Your task to perform on an android device: Open ESPN.com Image 0: 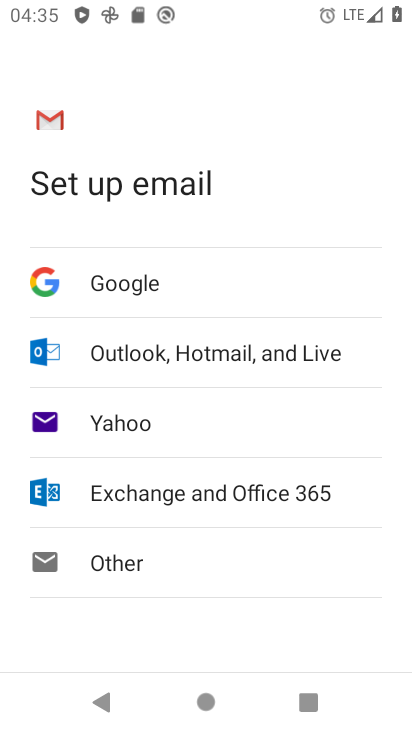
Step 0: press home button
Your task to perform on an android device: Open ESPN.com Image 1: 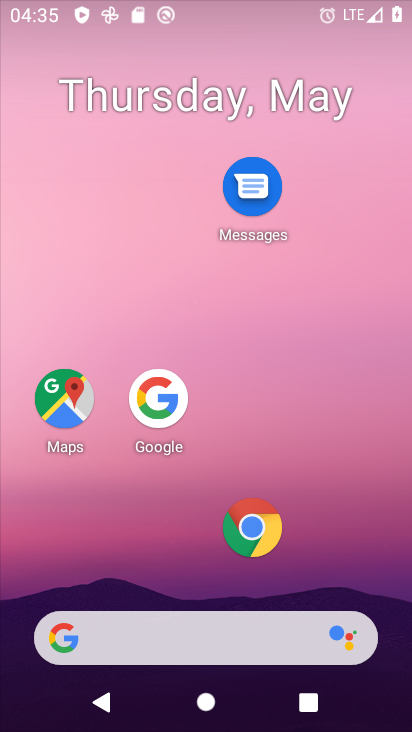
Step 1: drag from (194, 589) to (167, 7)
Your task to perform on an android device: Open ESPN.com Image 2: 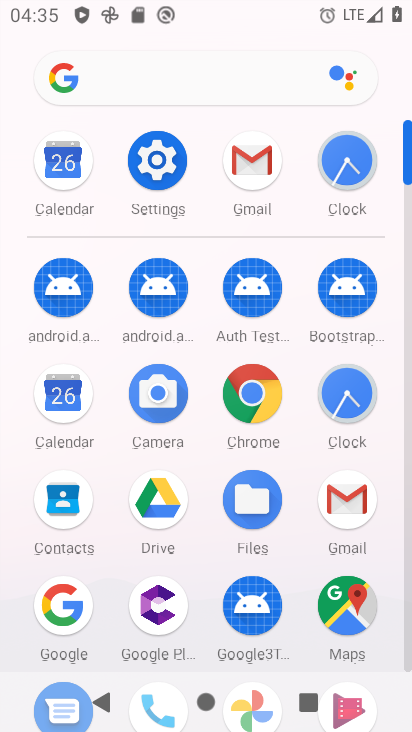
Step 2: click (253, 395)
Your task to perform on an android device: Open ESPN.com Image 3: 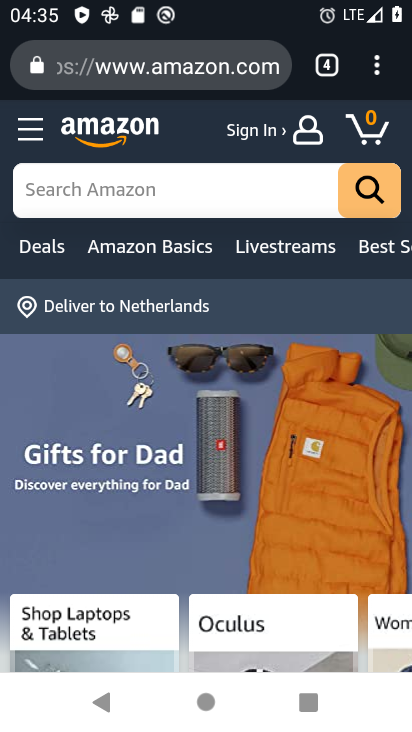
Step 3: click (309, 69)
Your task to perform on an android device: Open ESPN.com Image 4: 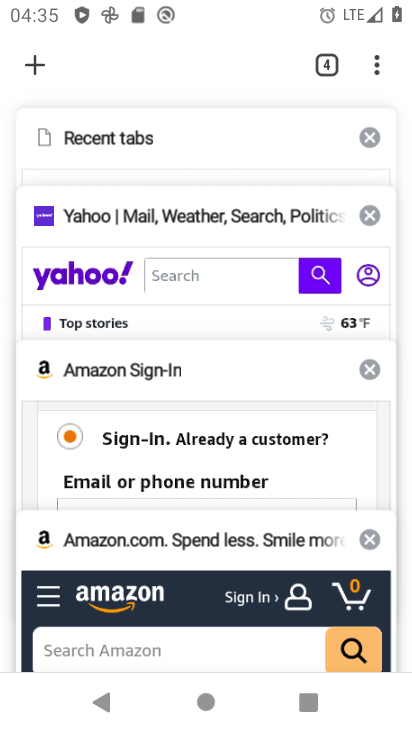
Step 4: click (35, 77)
Your task to perform on an android device: Open ESPN.com Image 5: 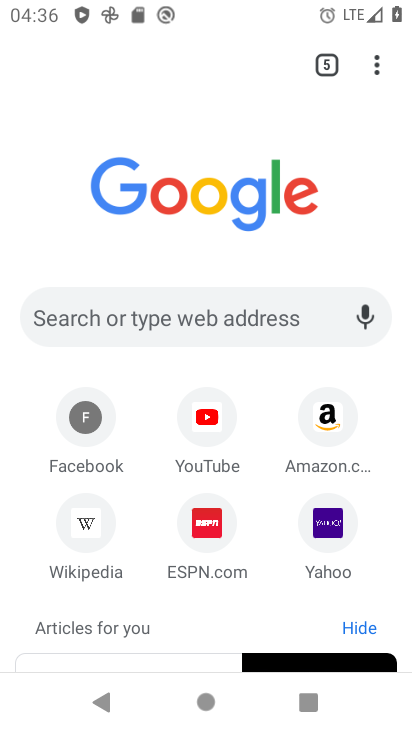
Step 5: click (213, 522)
Your task to perform on an android device: Open ESPN.com Image 6: 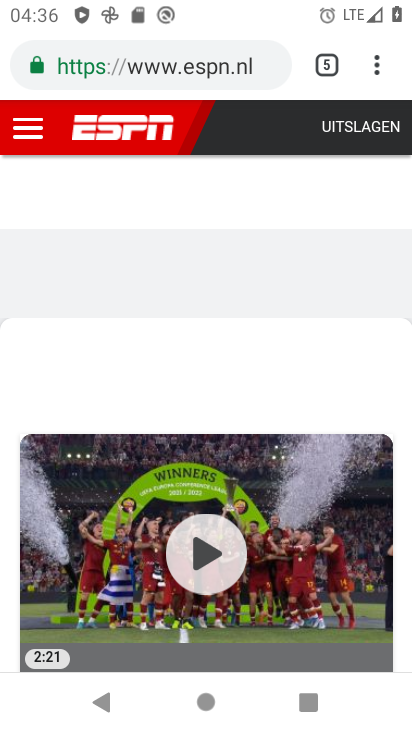
Step 6: task complete